Your task to perform on an android device: Show me productivity apps on the Play Store Image 0: 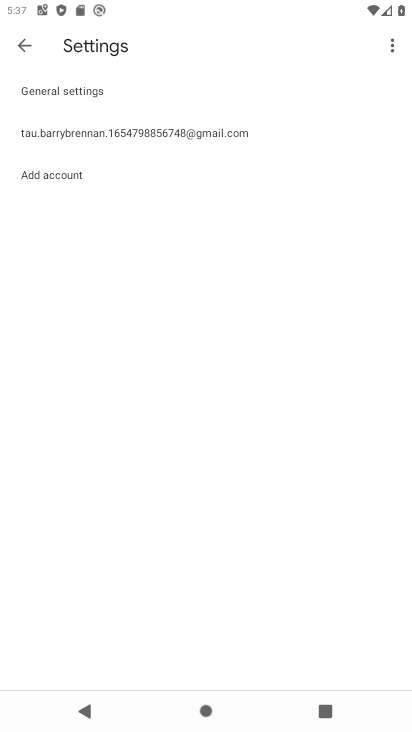
Step 0: press back button
Your task to perform on an android device: Show me productivity apps on the Play Store Image 1: 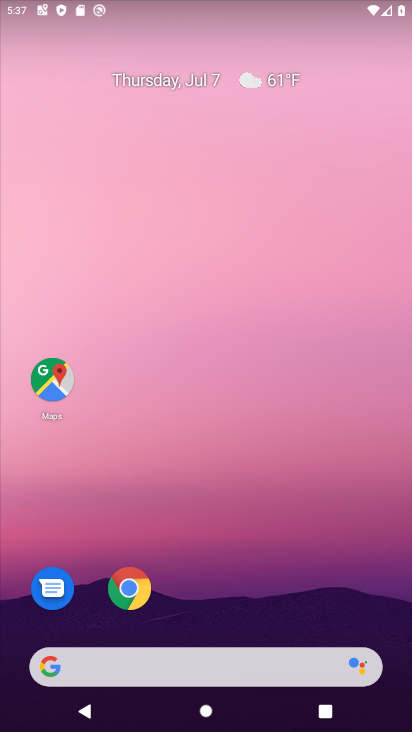
Step 1: drag from (299, 598) to (296, 41)
Your task to perform on an android device: Show me productivity apps on the Play Store Image 2: 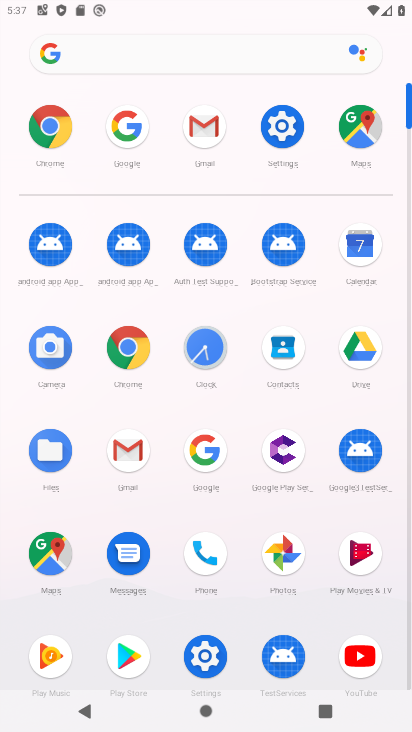
Step 2: click (136, 655)
Your task to perform on an android device: Show me productivity apps on the Play Store Image 3: 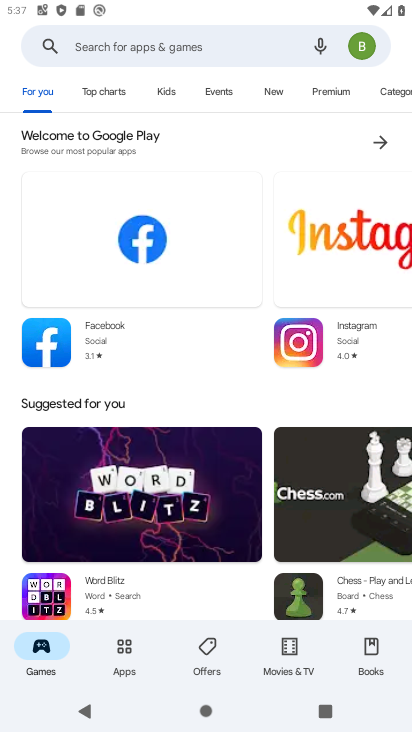
Step 3: click (126, 650)
Your task to perform on an android device: Show me productivity apps on the Play Store Image 4: 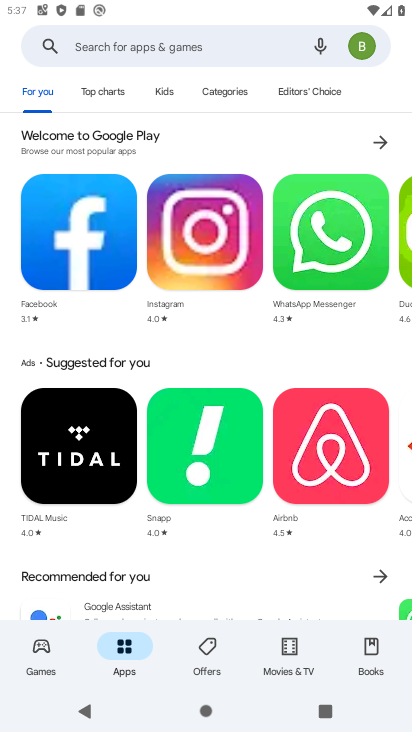
Step 4: drag from (194, 551) to (272, 36)
Your task to perform on an android device: Show me productivity apps on the Play Store Image 5: 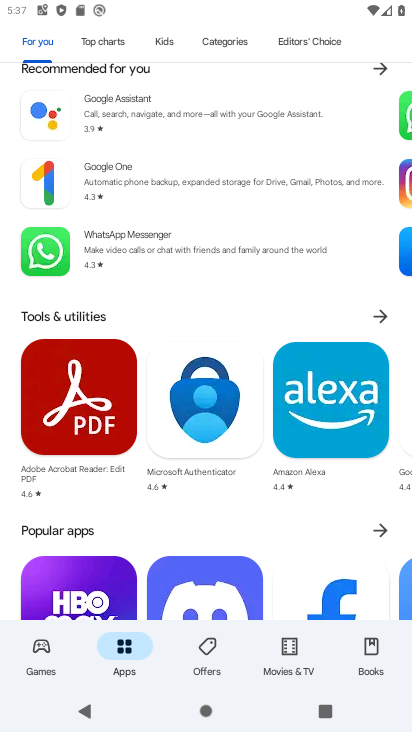
Step 5: drag from (220, 554) to (289, 60)
Your task to perform on an android device: Show me productivity apps on the Play Store Image 6: 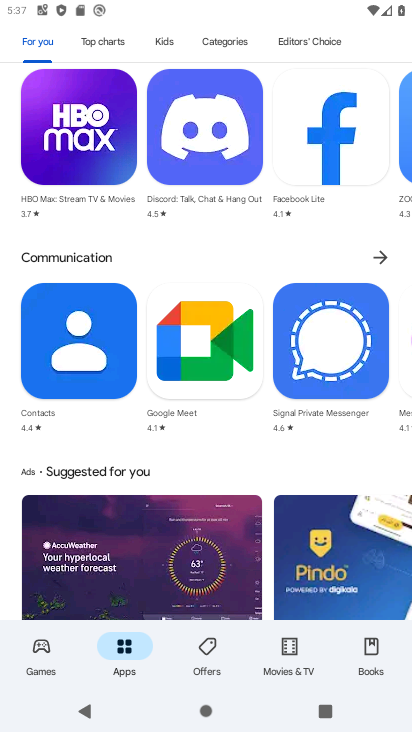
Step 6: drag from (233, 543) to (303, 47)
Your task to perform on an android device: Show me productivity apps on the Play Store Image 7: 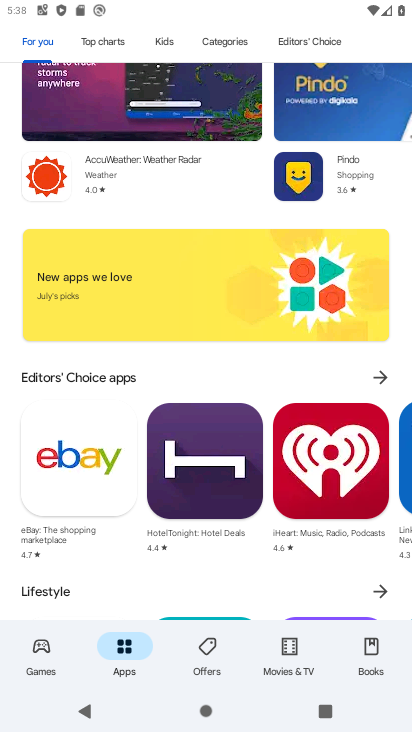
Step 7: drag from (220, 579) to (251, 196)
Your task to perform on an android device: Show me productivity apps on the Play Store Image 8: 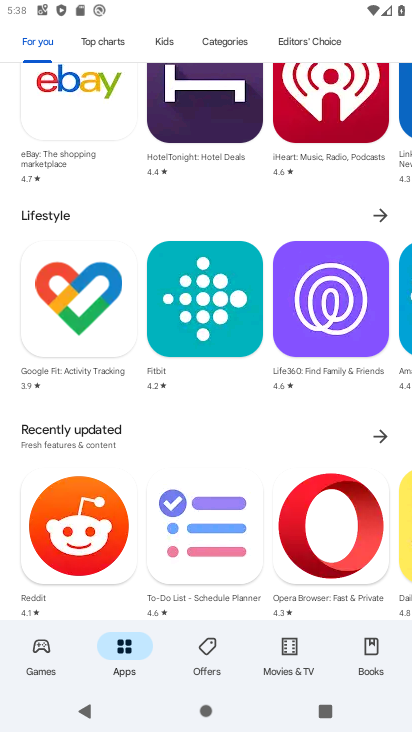
Step 8: drag from (211, 558) to (300, 154)
Your task to perform on an android device: Show me productivity apps on the Play Store Image 9: 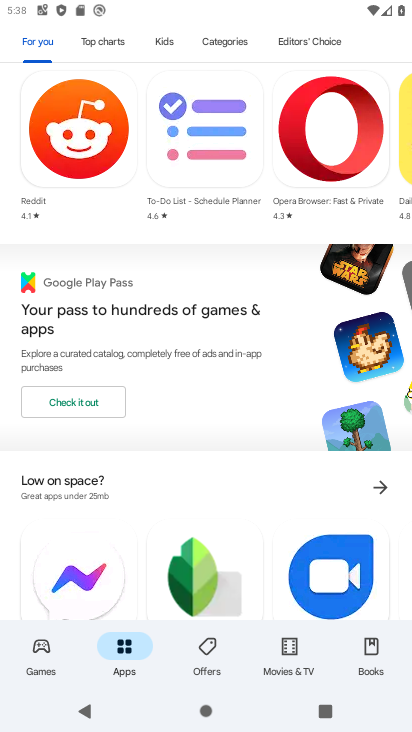
Step 9: drag from (233, 546) to (299, 113)
Your task to perform on an android device: Show me productivity apps on the Play Store Image 10: 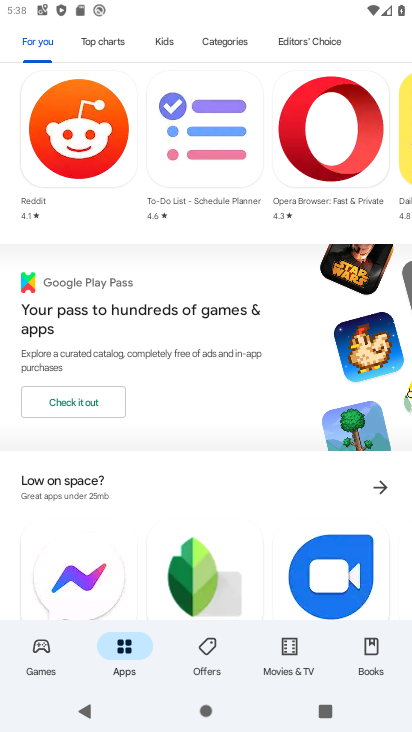
Step 10: drag from (185, 540) to (257, 165)
Your task to perform on an android device: Show me productivity apps on the Play Store Image 11: 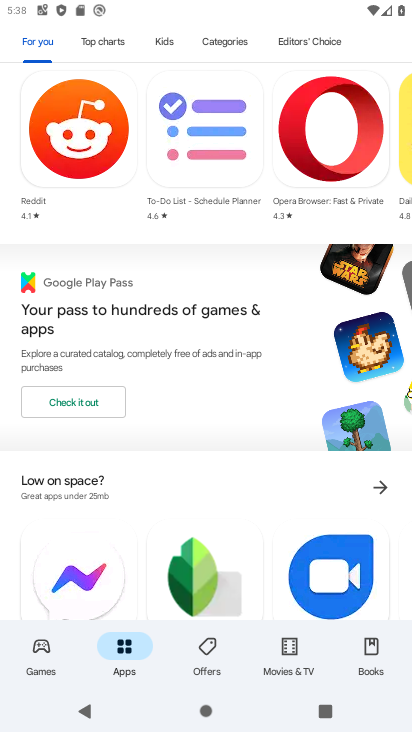
Step 11: drag from (237, 230) to (154, 683)
Your task to perform on an android device: Show me productivity apps on the Play Store Image 12: 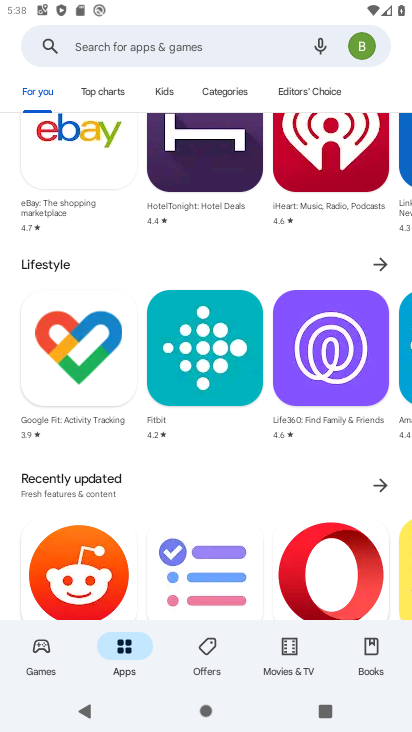
Step 12: drag from (177, 294) to (136, 596)
Your task to perform on an android device: Show me productivity apps on the Play Store Image 13: 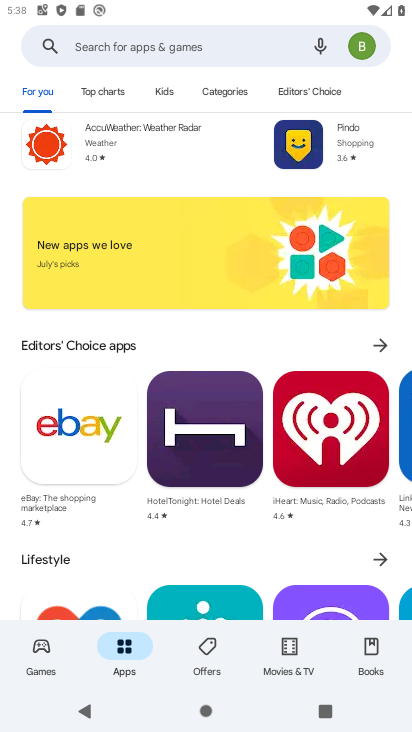
Step 13: drag from (162, 242) to (91, 659)
Your task to perform on an android device: Show me productivity apps on the Play Store Image 14: 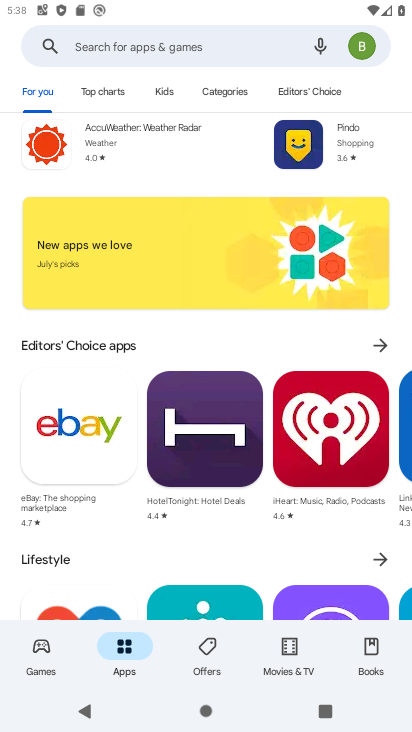
Step 14: drag from (199, 197) to (201, 546)
Your task to perform on an android device: Show me productivity apps on the Play Store Image 15: 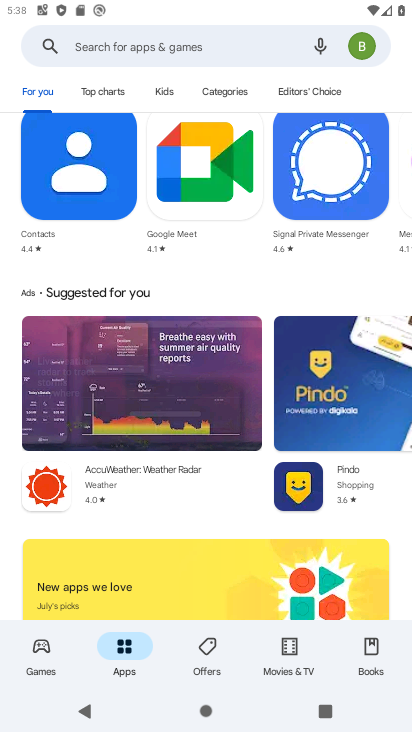
Step 15: drag from (197, 208) to (160, 547)
Your task to perform on an android device: Show me productivity apps on the Play Store Image 16: 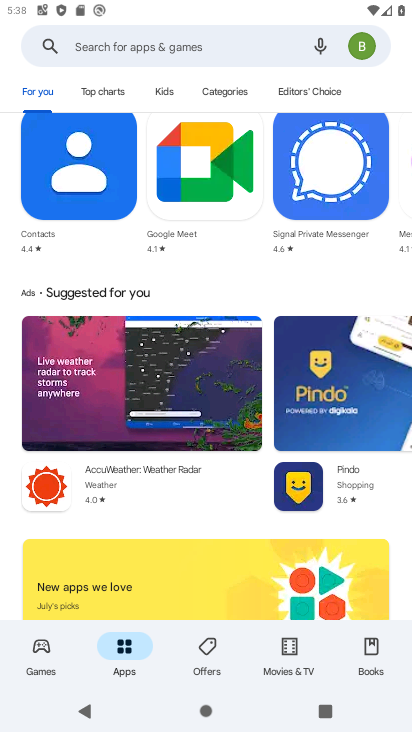
Step 16: drag from (212, 180) to (196, 453)
Your task to perform on an android device: Show me productivity apps on the Play Store Image 17: 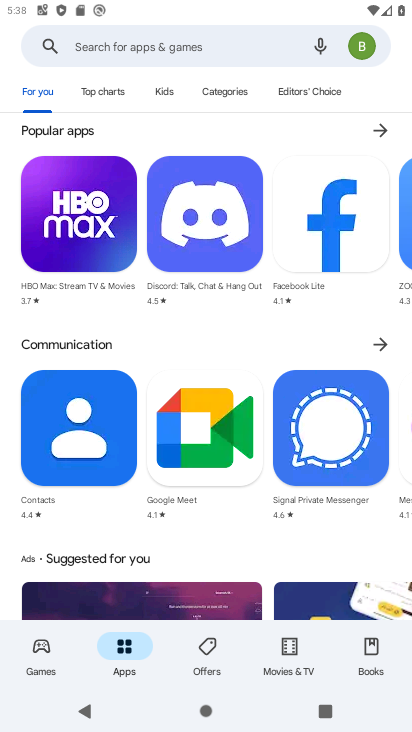
Step 17: drag from (168, 171) to (152, 571)
Your task to perform on an android device: Show me productivity apps on the Play Store Image 18: 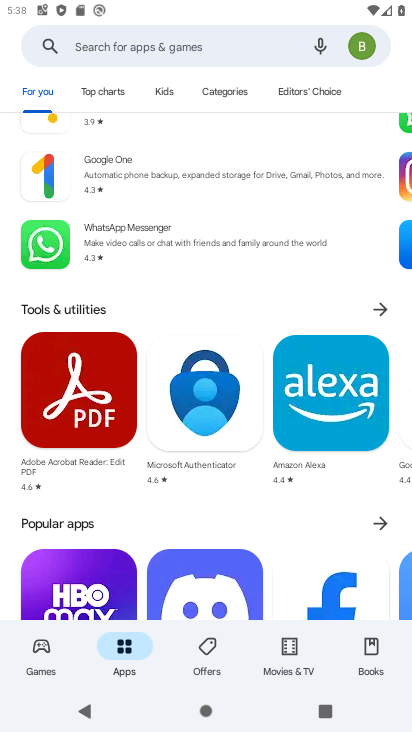
Step 18: drag from (170, 196) to (109, 716)
Your task to perform on an android device: Show me productivity apps on the Play Store Image 19: 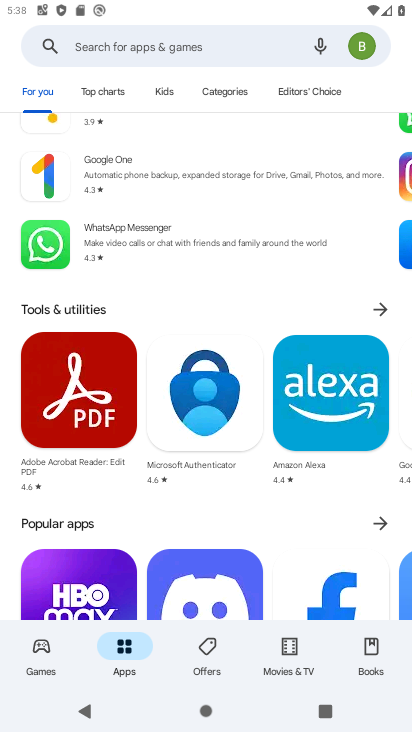
Step 19: drag from (208, 159) to (214, 692)
Your task to perform on an android device: Show me productivity apps on the Play Store Image 20: 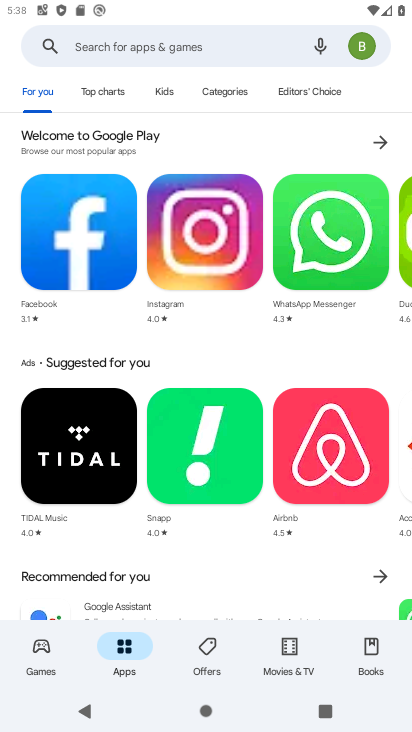
Step 20: drag from (163, 193) to (166, 660)
Your task to perform on an android device: Show me productivity apps on the Play Store Image 21: 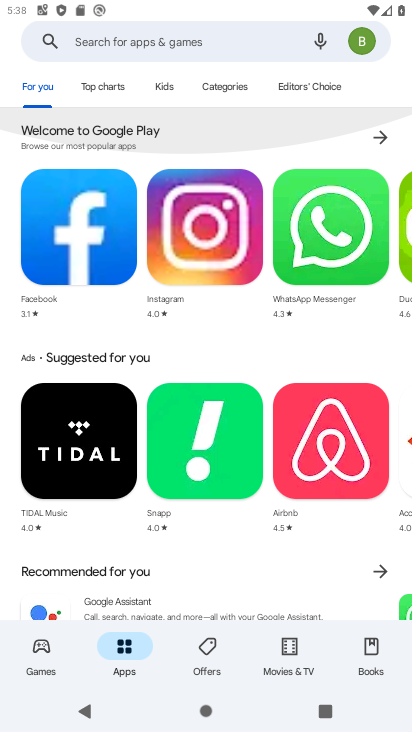
Step 21: drag from (155, 530) to (250, 95)
Your task to perform on an android device: Show me productivity apps on the Play Store Image 22: 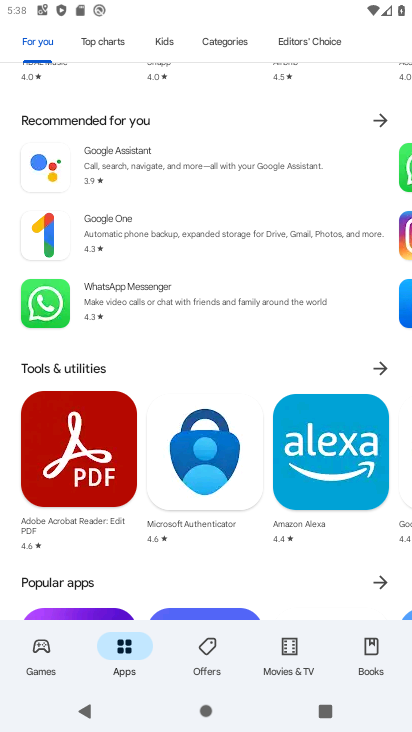
Step 22: drag from (186, 514) to (270, 14)
Your task to perform on an android device: Show me productivity apps on the Play Store Image 23: 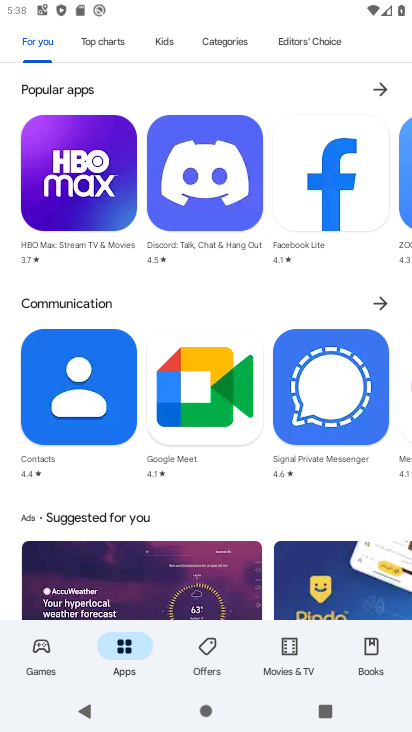
Step 23: drag from (214, 556) to (300, 150)
Your task to perform on an android device: Show me productivity apps on the Play Store Image 24: 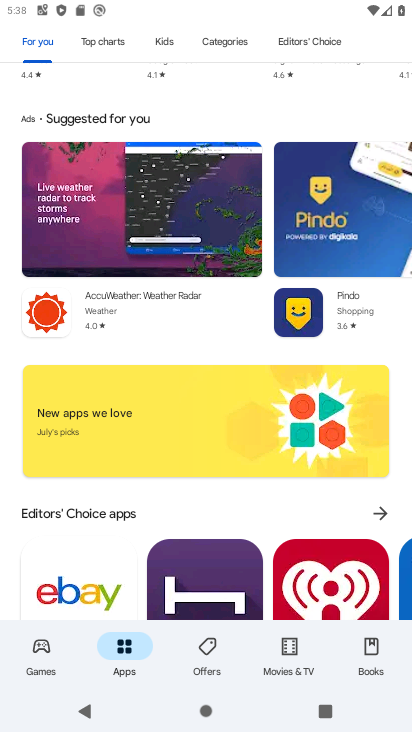
Step 24: drag from (177, 567) to (240, 147)
Your task to perform on an android device: Show me productivity apps on the Play Store Image 25: 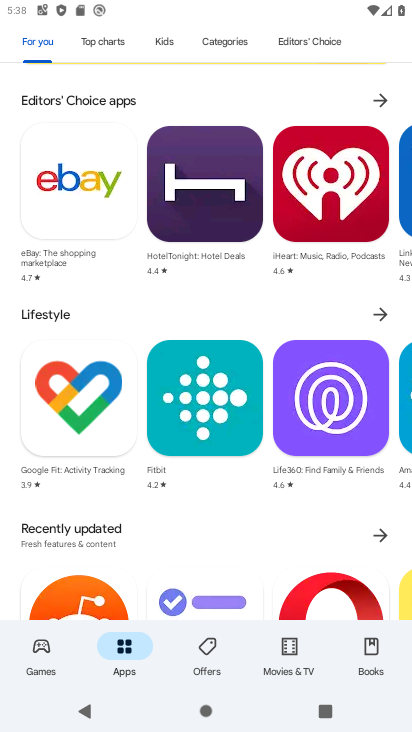
Step 25: drag from (161, 518) to (259, 124)
Your task to perform on an android device: Show me productivity apps on the Play Store Image 26: 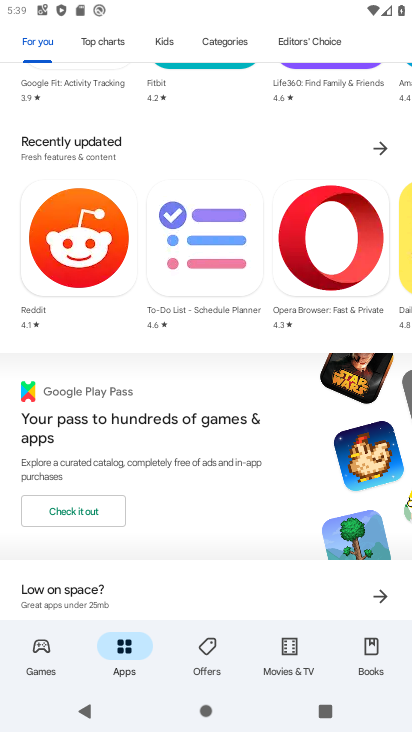
Step 26: drag from (206, 510) to (274, 23)
Your task to perform on an android device: Show me productivity apps on the Play Store Image 27: 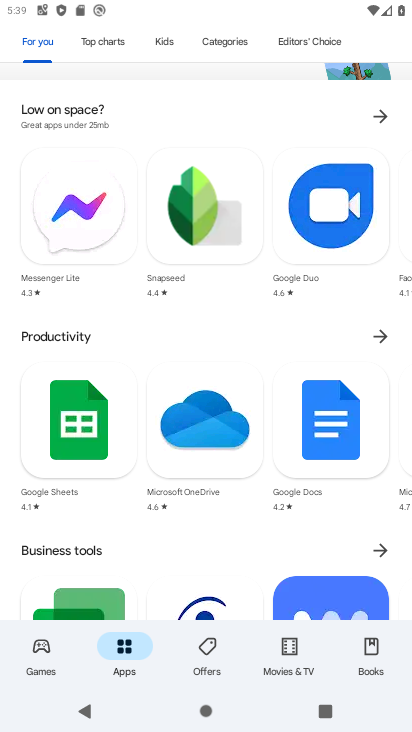
Step 27: click (384, 336)
Your task to perform on an android device: Show me productivity apps on the Play Store Image 28: 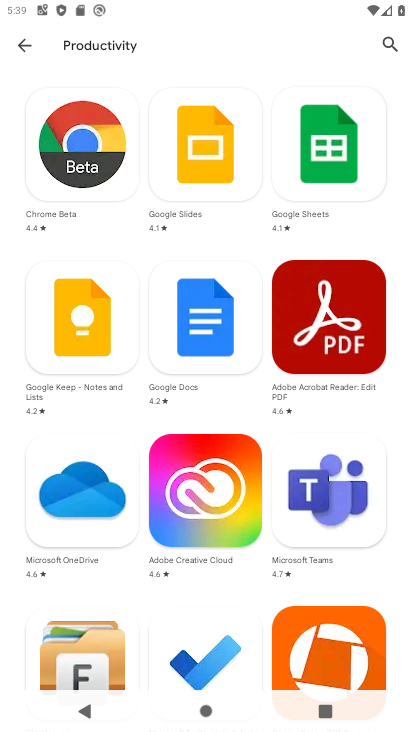
Step 28: task complete